Your task to perform on an android device: Clear all items from cart on newegg.com. Search for "alienware area 51" on newegg.com, select the first entry, add it to the cart, then select checkout. Image 0: 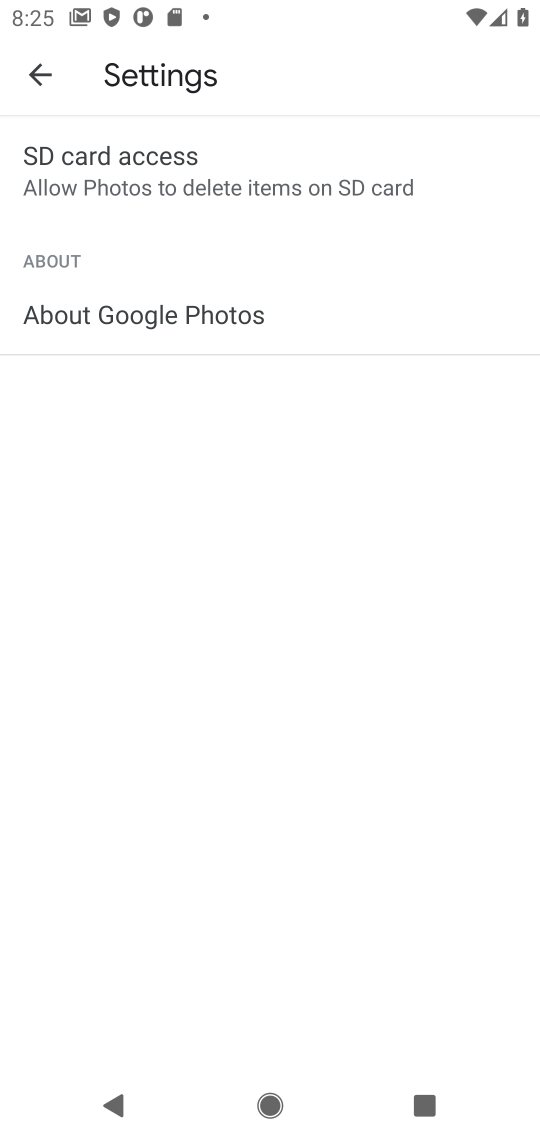
Step 0: press home button
Your task to perform on an android device: Clear all items from cart on newegg.com. Search for "alienware area 51" on newegg.com, select the first entry, add it to the cart, then select checkout. Image 1: 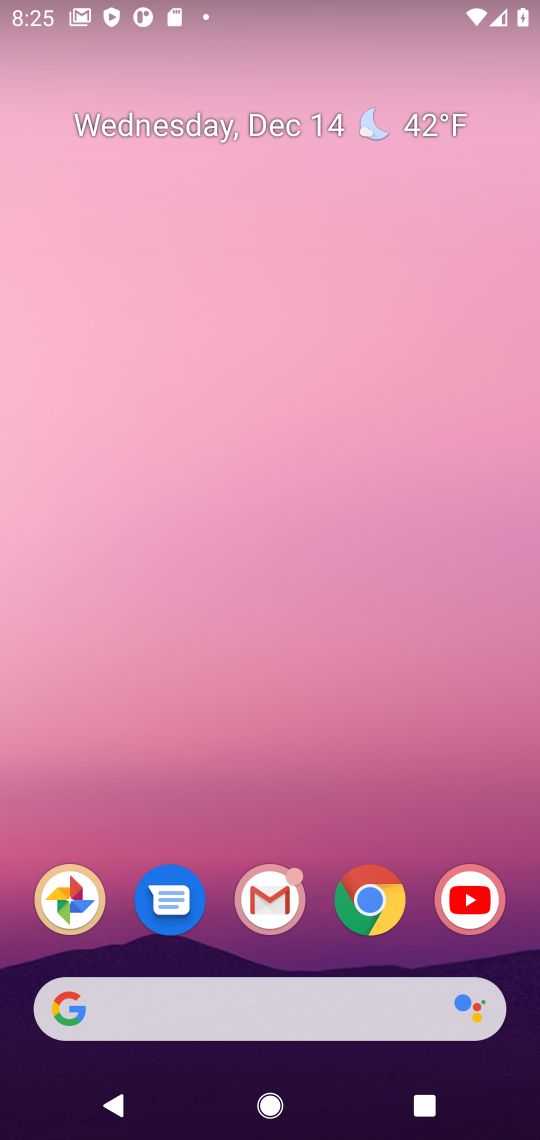
Step 1: click (377, 902)
Your task to perform on an android device: Clear all items from cart on newegg.com. Search for "alienware area 51" on newegg.com, select the first entry, add it to the cart, then select checkout. Image 2: 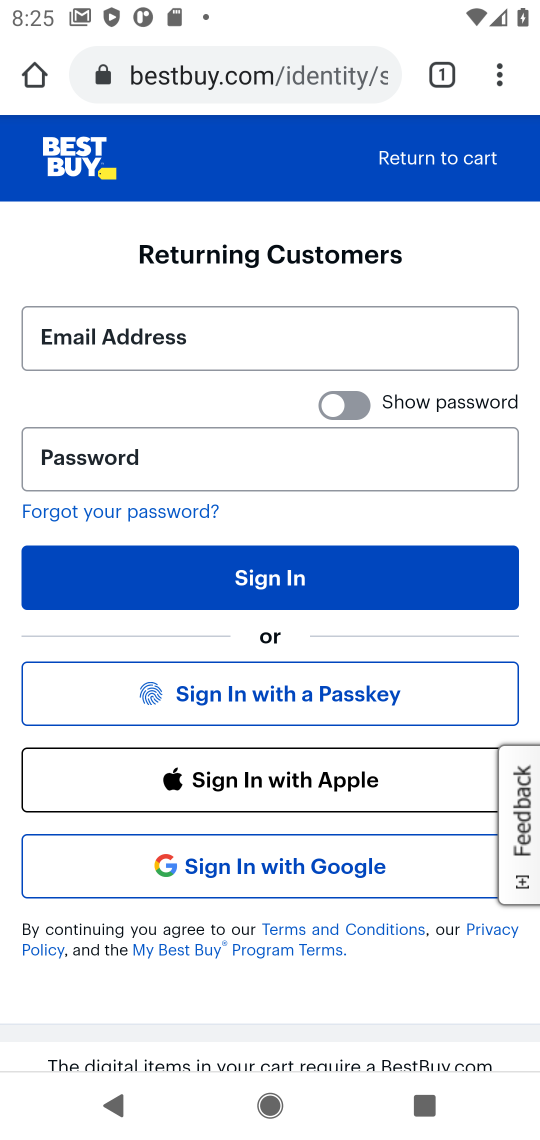
Step 2: click (190, 78)
Your task to perform on an android device: Clear all items from cart on newegg.com. Search for "alienware area 51" on newegg.com, select the first entry, add it to the cart, then select checkout. Image 3: 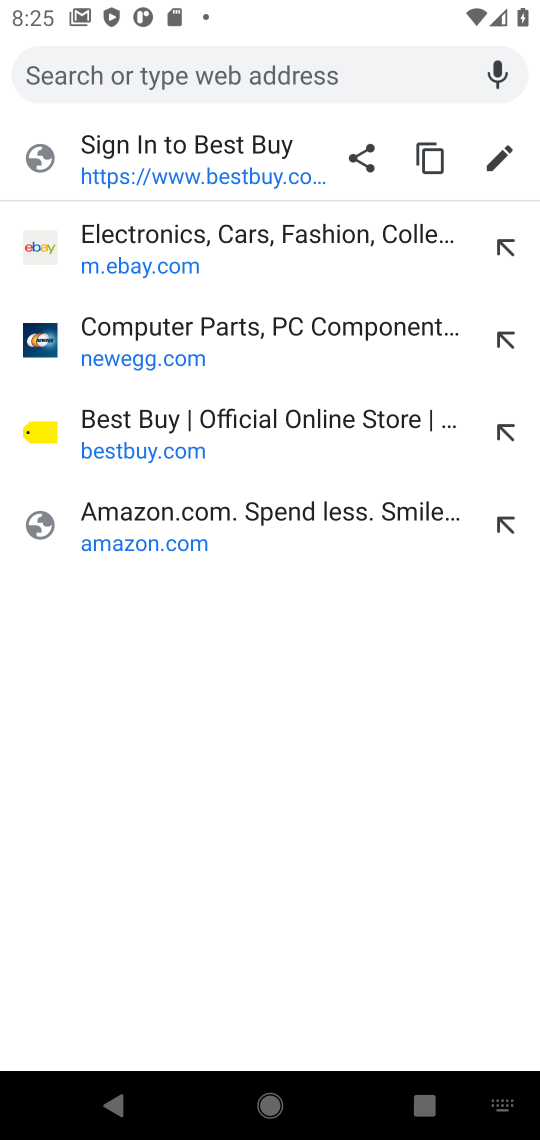
Step 3: click (128, 354)
Your task to perform on an android device: Clear all items from cart on newegg.com. Search for "alienware area 51" on newegg.com, select the first entry, add it to the cart, then select checkout. Image 4: 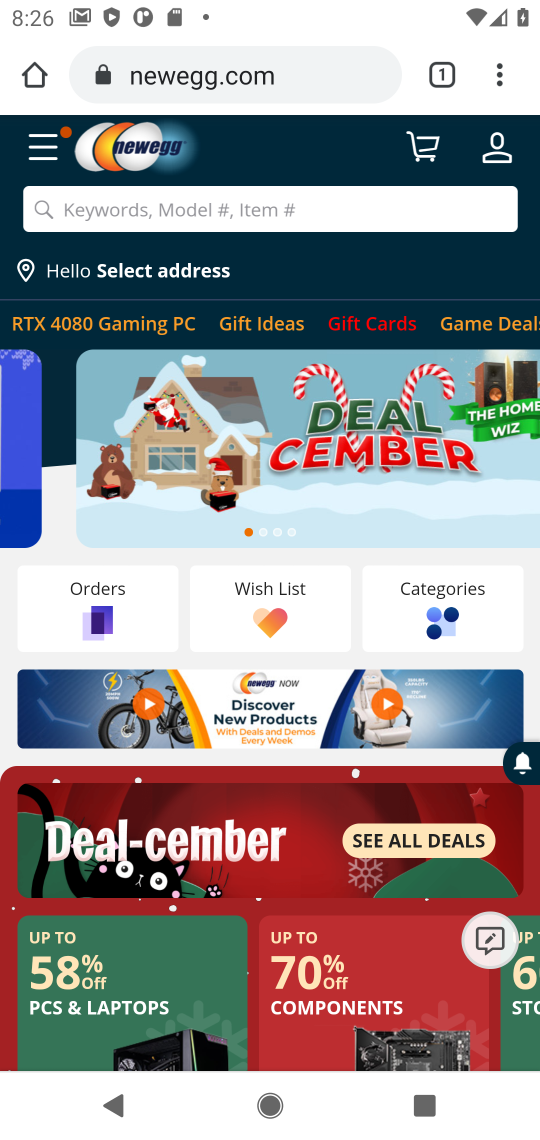
Step 4: click (426, 157)
Your task to perform on an android device: Clear all items from cart on newegg.com. Search for "alienware area 51" on newegg.com, select the first entry, add it to the cart, then select checkout. Image 5: 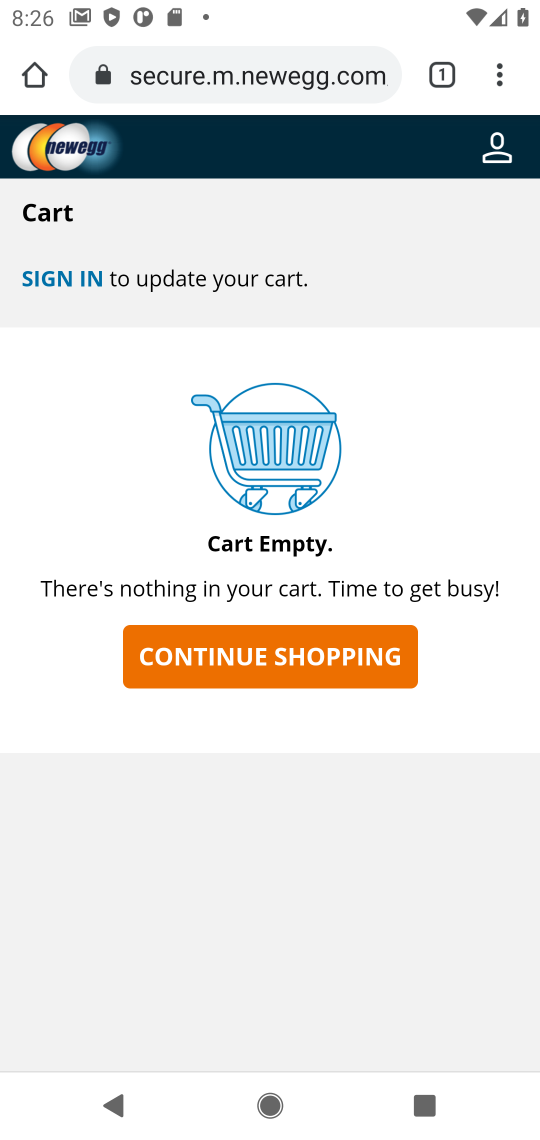
Step 5: click (244, 649)
Your task to perform on an android device: Clear all items from cart on newegg.com. Search for "alienware area 51" on newegg.com, select the first entry, add it to the cart, then select checkout. Image 6: 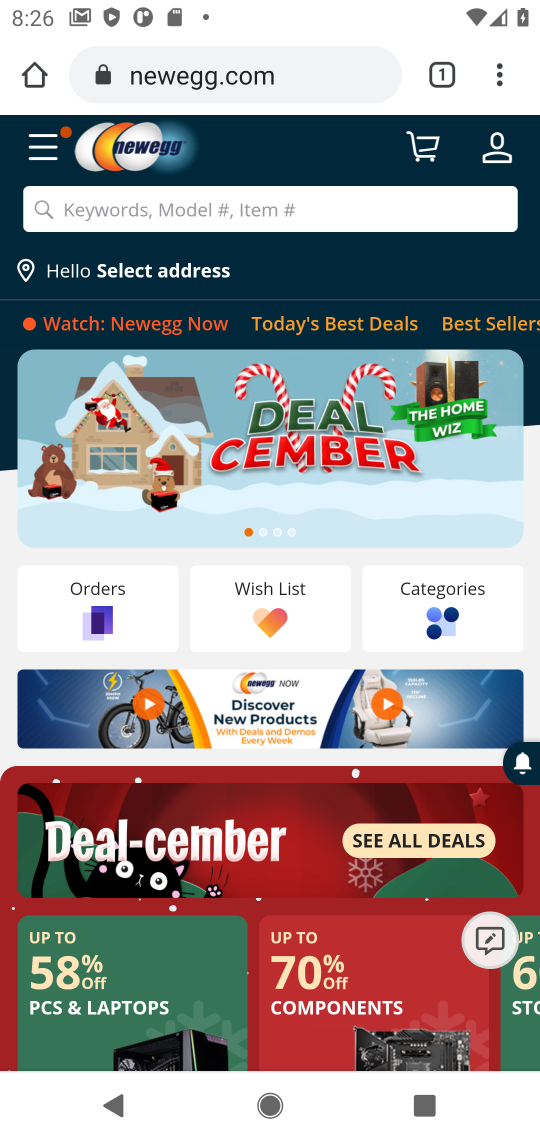
Step 6: click (126, 201)
Your task to perform on an android device: Clear all items from cart on newegg.com. Search for "alienware area 51" on newegg.com, select the first entry, add it to the cart, then select checkout. Image 7: 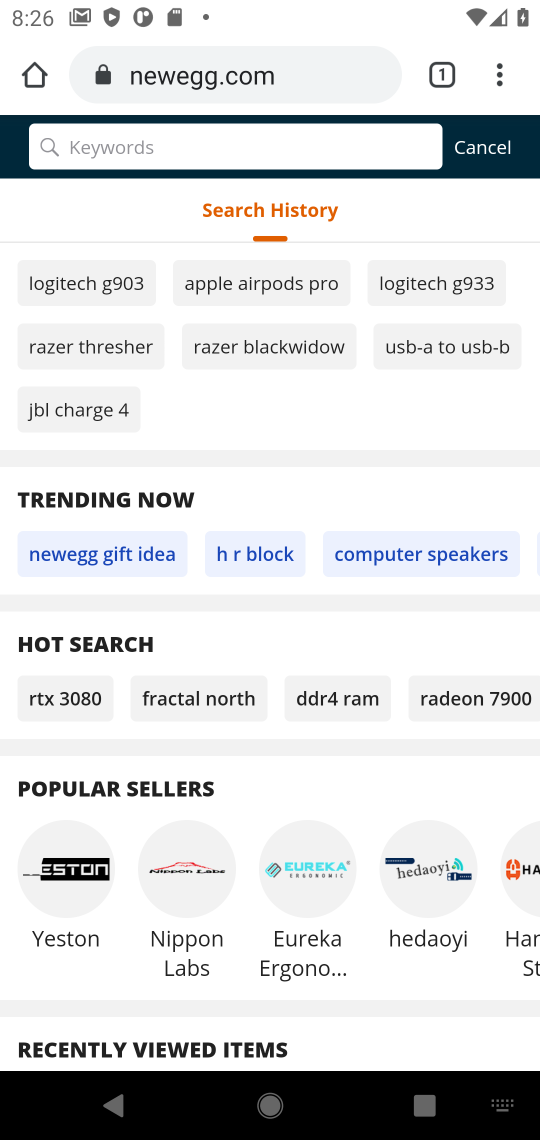
Step 7: type "alienware area 51"
Your task to perform on an android device: Clear all items from cart on newegg.com. Search for "alienware area 51" on newegg.com, select the first entry, add it to the cart, then select checkout. Image 8: 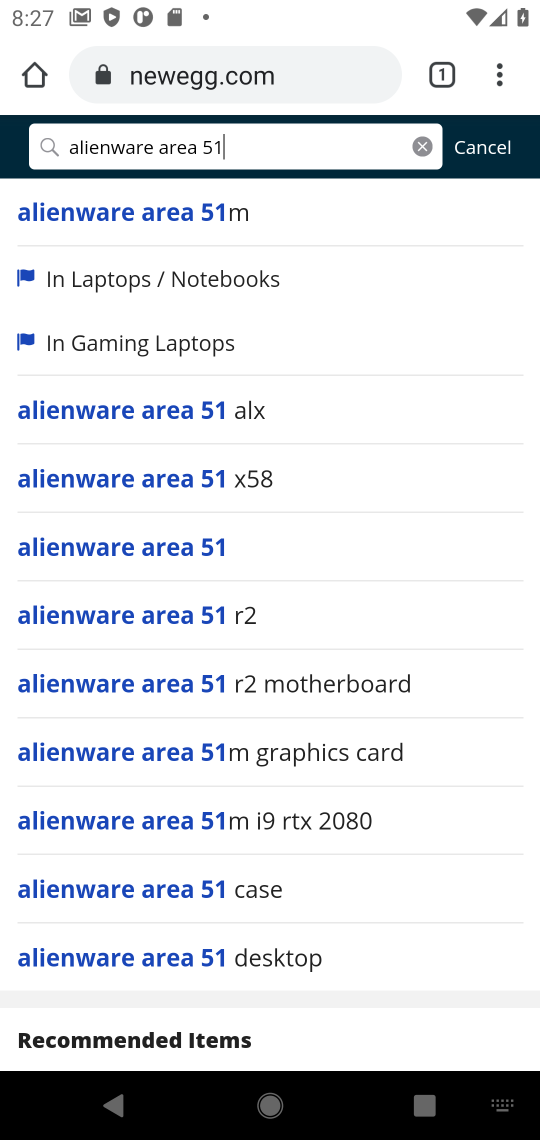
Step 8: click (133, 552)
Your task to perform on an android device: Clear all items from cart on newegg.com. Search for "alienware area 51" on newegg.com, select the first entry, add it to the cart, then select checkout. Image 9: 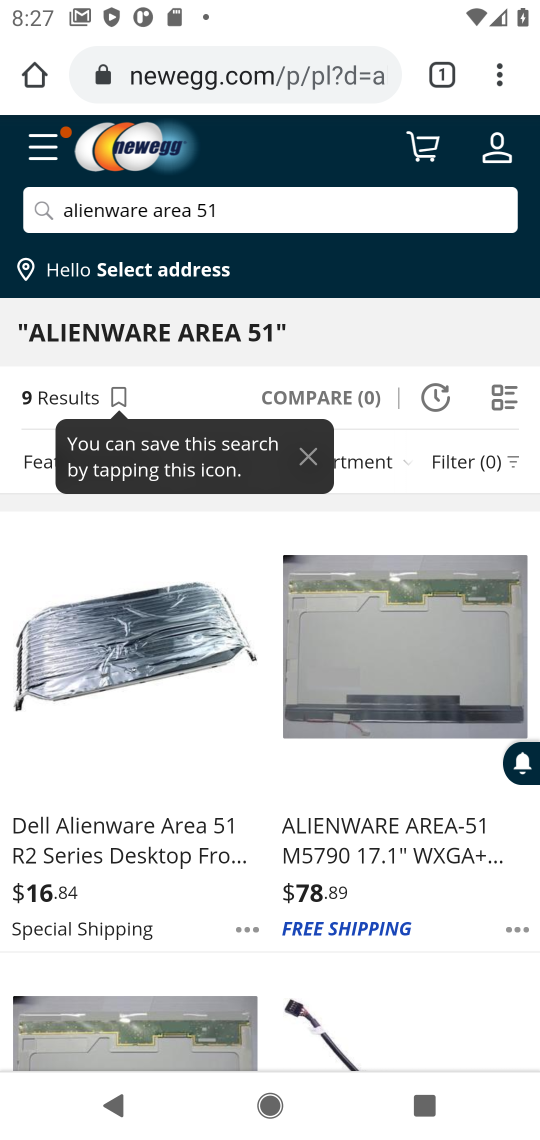
Step 9: click (109, 844)
Your task to perform on an android device: Clear all items from cart on newegg.com. Search for "alienware area 51" on newegg.com, select the first entry, add it to the cart, then select checkout. Image 10: 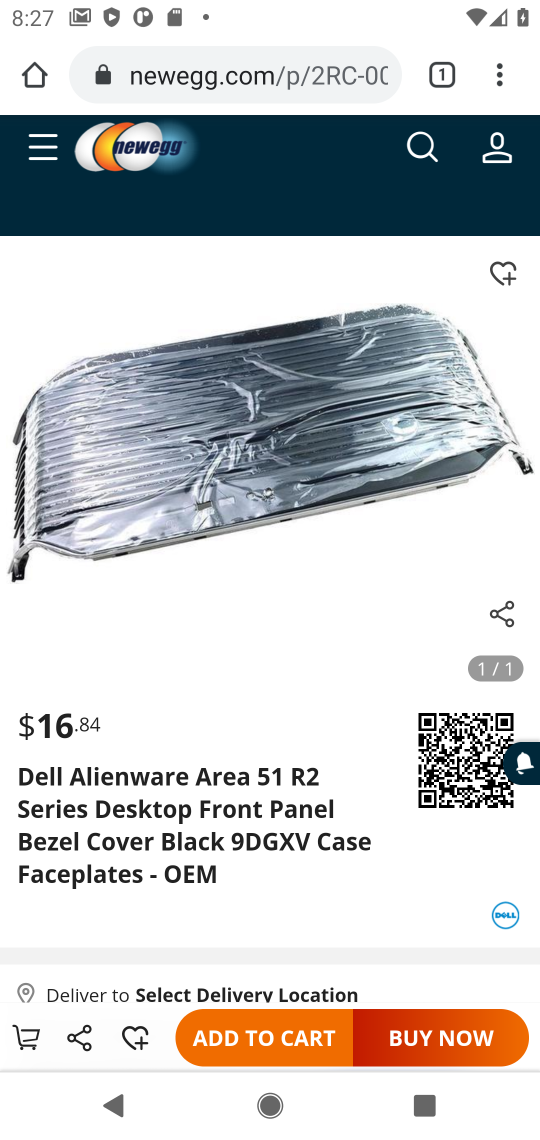
Step 10: click (248, 1033)
Your task to perform on an android device: Clear all items from cart on newegg.com. Search for "alienware area 51" on newegg.com, select the first entry, add it to the cart, then select checkout. Image 11: 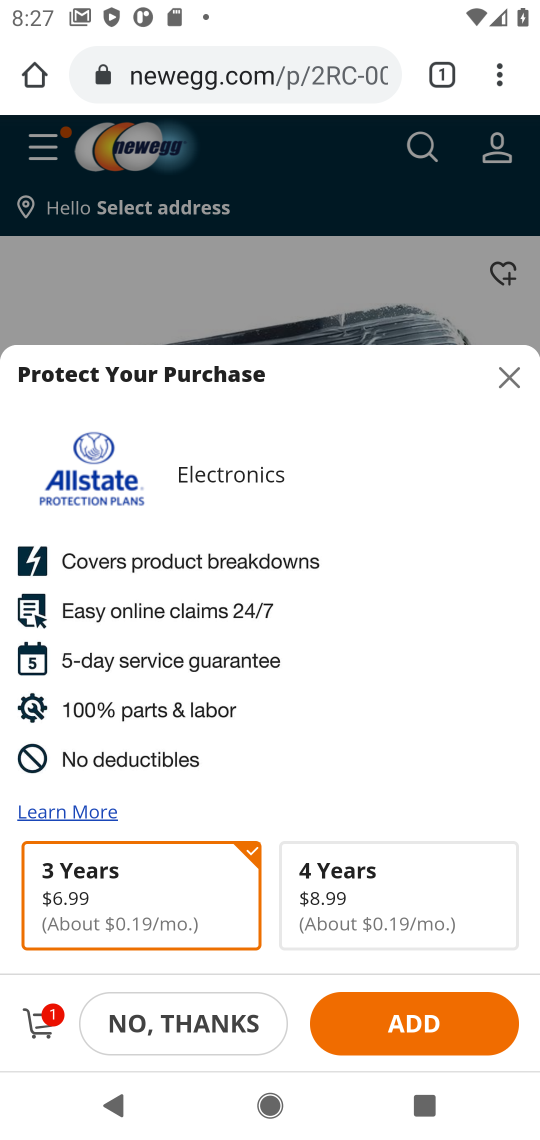
Step 11: click (38, 1018)
Your task to perform on an android device: Clear all items from cart on newegg.com. Search for "alienware area 51" on newegg.com, select the first entry, add it to the cart, then select checkout. Image 12: 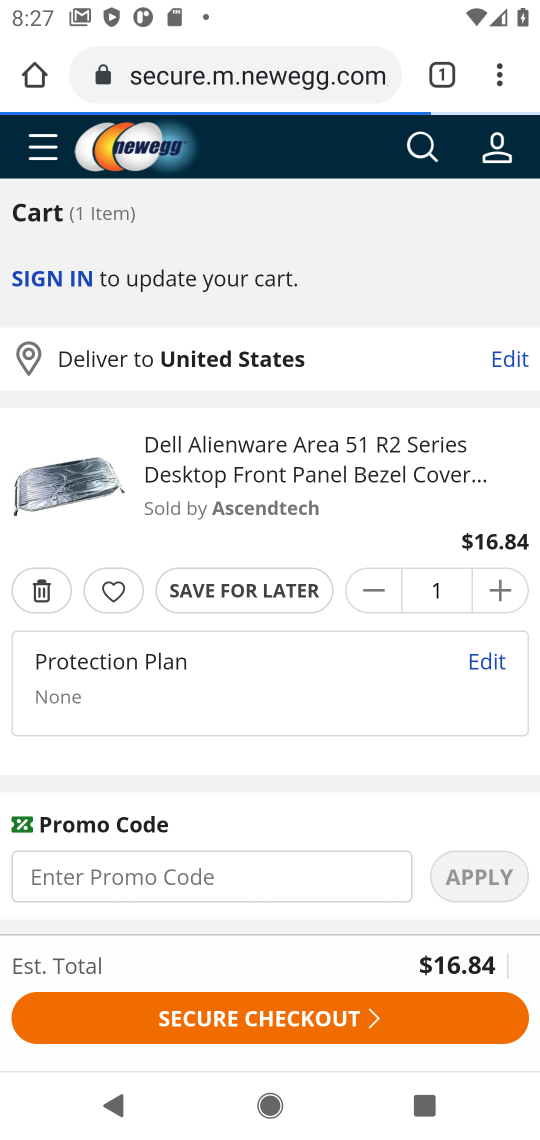
Step 12: click (68, 1010)
Your task to perform on an android device: Clear all items from cart on newegg.com. Search for "alienware area 51" on newegg.com, select the first entry, add it to the cart, then select checkout. Image 13: 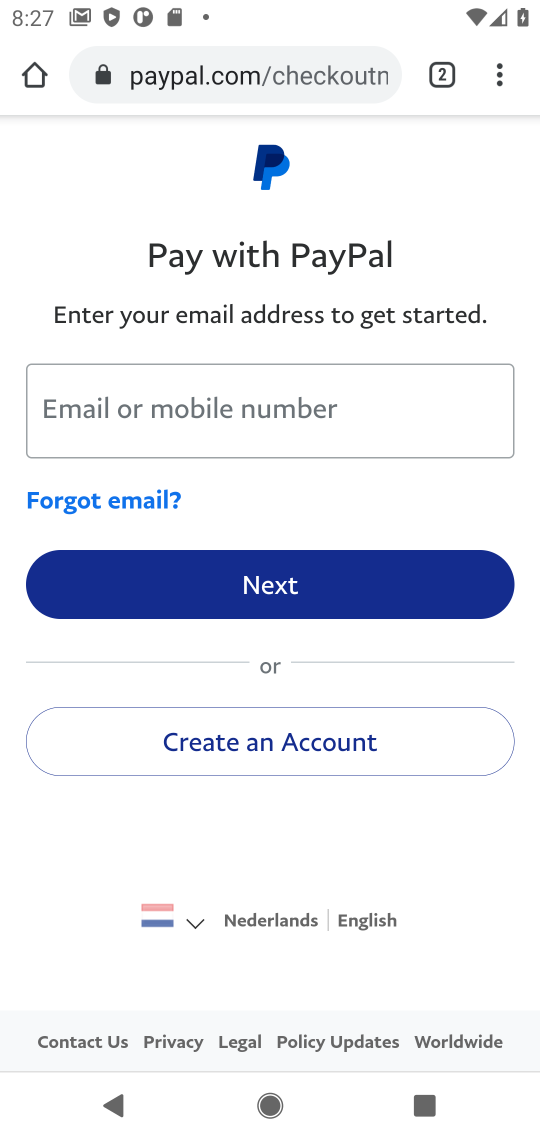
Step 13: task complete